Your task to perform on an android device: turn on airplane mode Image 0: 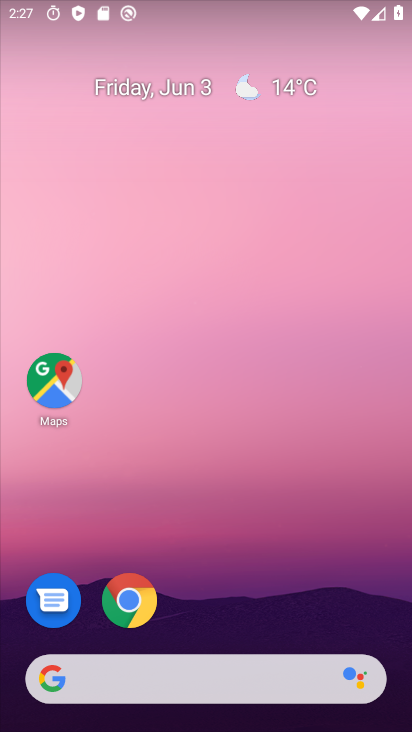
Step 0: drag from (255, 254) to (237, 31)
Your task to perform on an android device: turn on airplane mode Image 1: 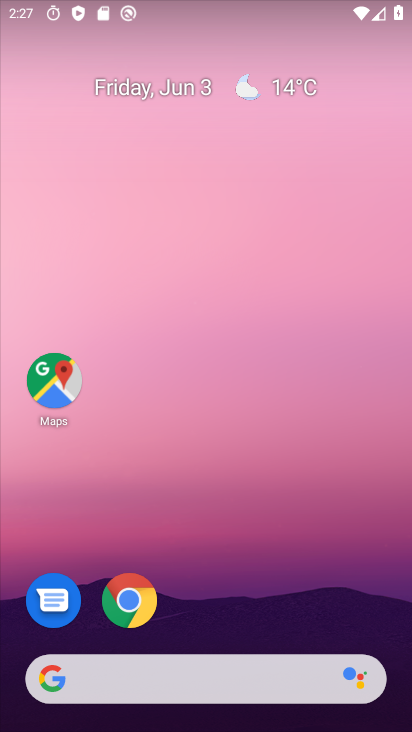
Step 1: drag from (245, 542) to (239, 17)
Your task to perform on an android device: turn on airplane mode Image 2: 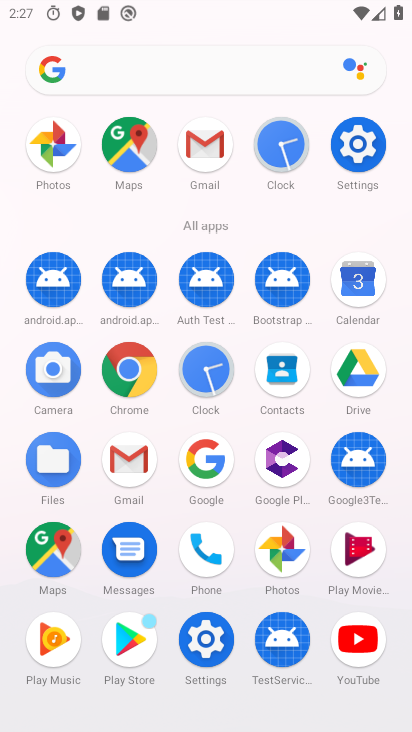
Step 2: click (129, 636)
Your task to perform on an android device: turn on airplane mode Image 3: 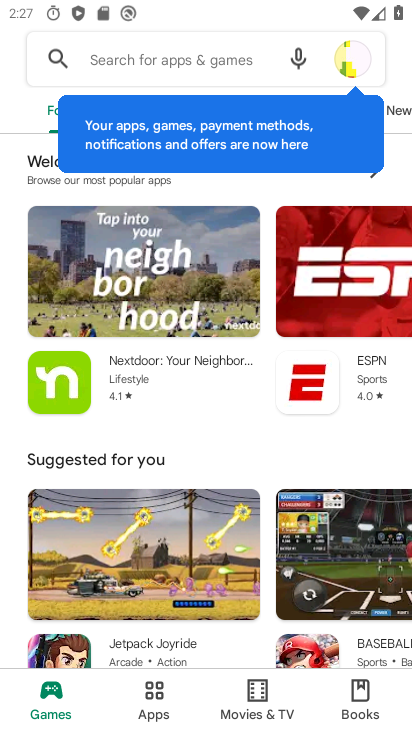
Step 3: press back button
Your task to perform on an android device: turn on airplane mode Image 4: 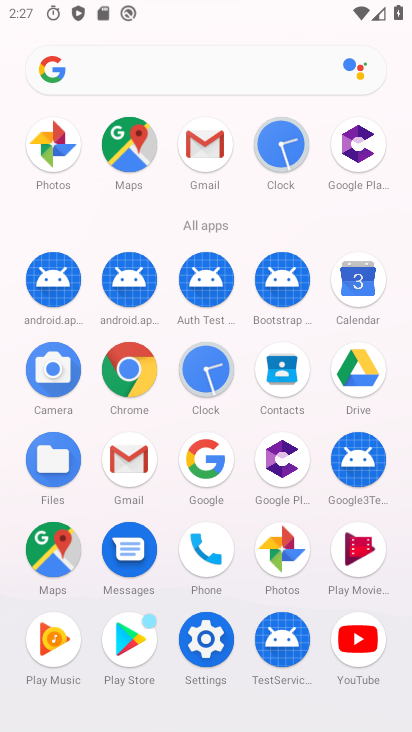
Step 4: click (208, 635)
Your task to perform on an android device: turn on airplane mode Image 5: 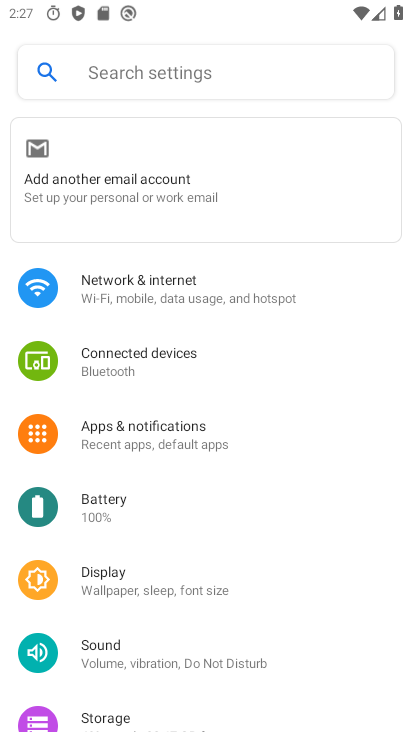
Step 5: click (197, 288)
Your task to perform on an android device: turn on airplane mode Image 6: 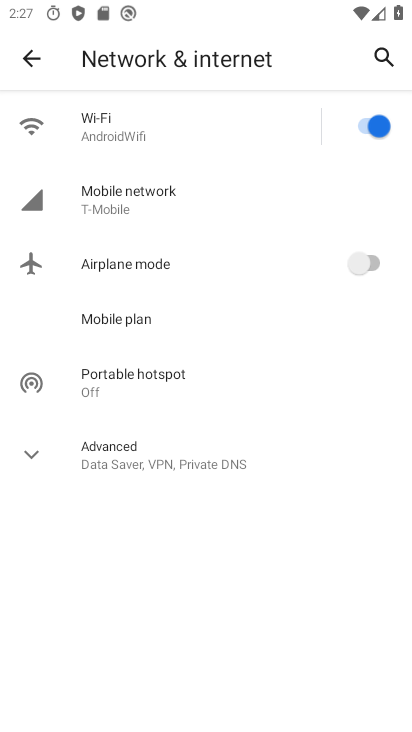
Step 6: click (355, 265)
Your task to perform on an android device: turn on airplane mode Image 7: 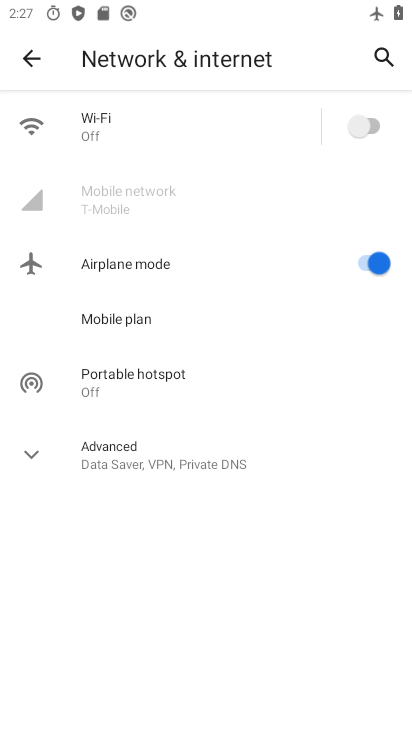
Step 7: click (37, 455)
Your task to perform on an android device: turn on airplane mode Image 8: 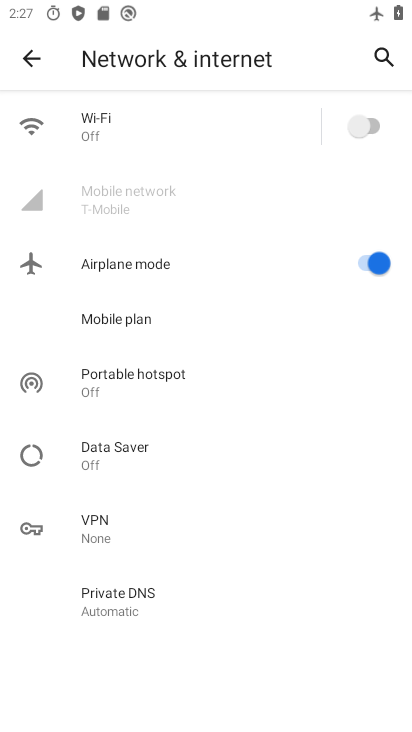
Step 8: task complete